Your task to perform on an android device: What's the news in French Guiana? Image 0: 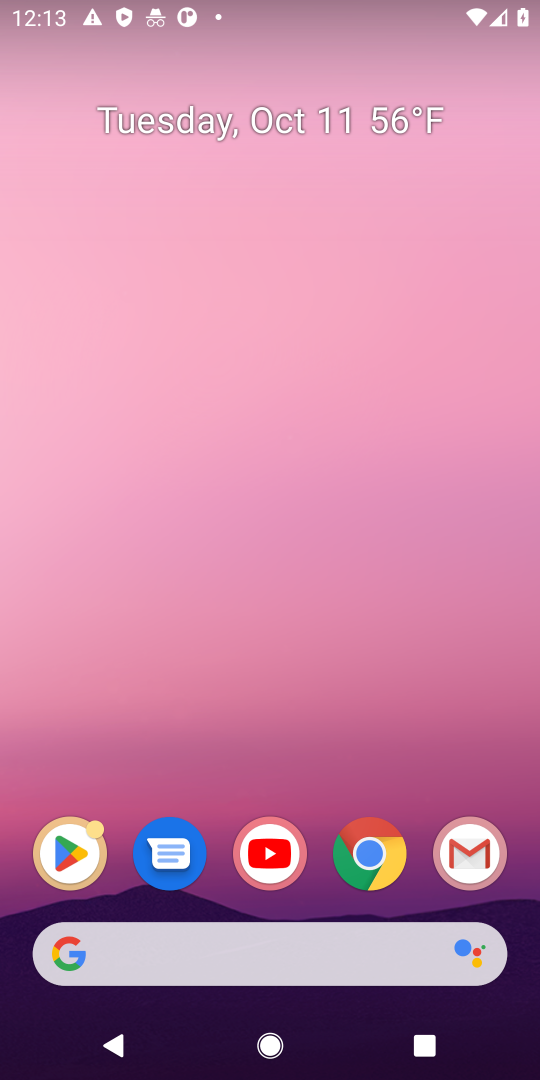
Step 0: drag from (306, 809) to (383, 30)
Your task to perform on an android device: What's the news in French Guiana? Image 1: 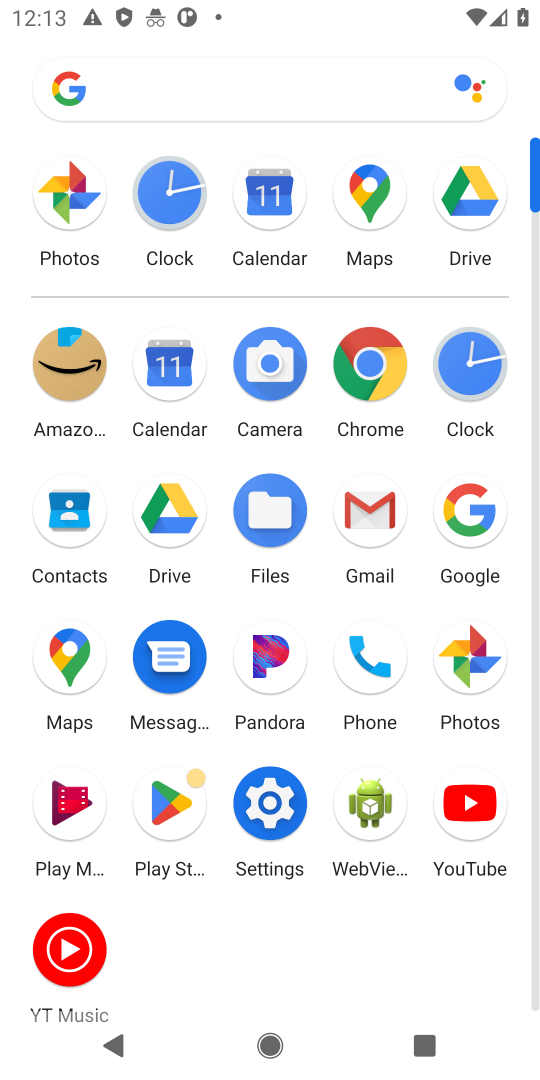
Step 1: click (376, 358)
Your task to perform on an android device: What's the news in French Guiana? Image 2: 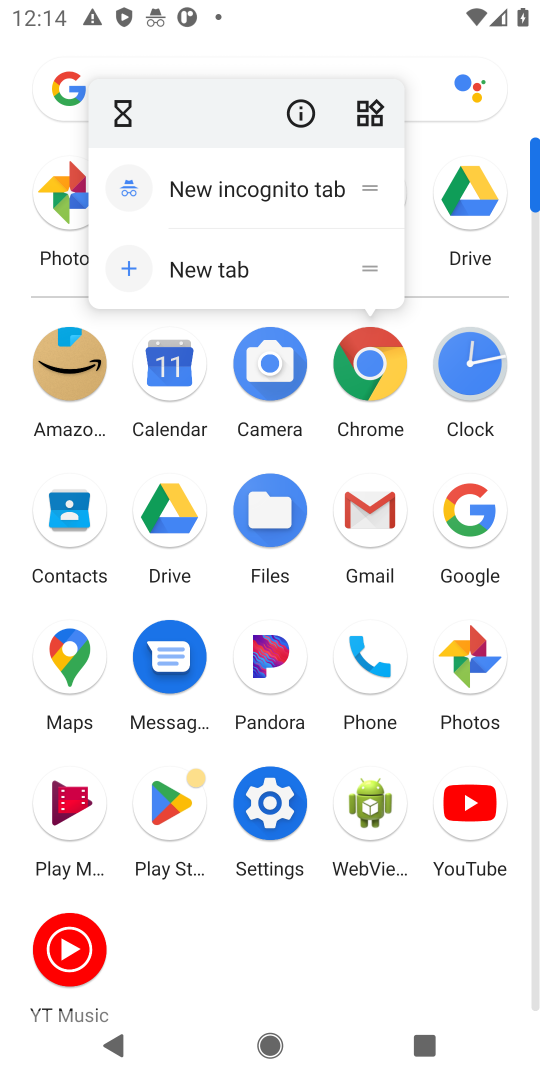
Step 2: click (385, 359)
Your task to perform on an android device: What's the news in French Guiana? Image 3: 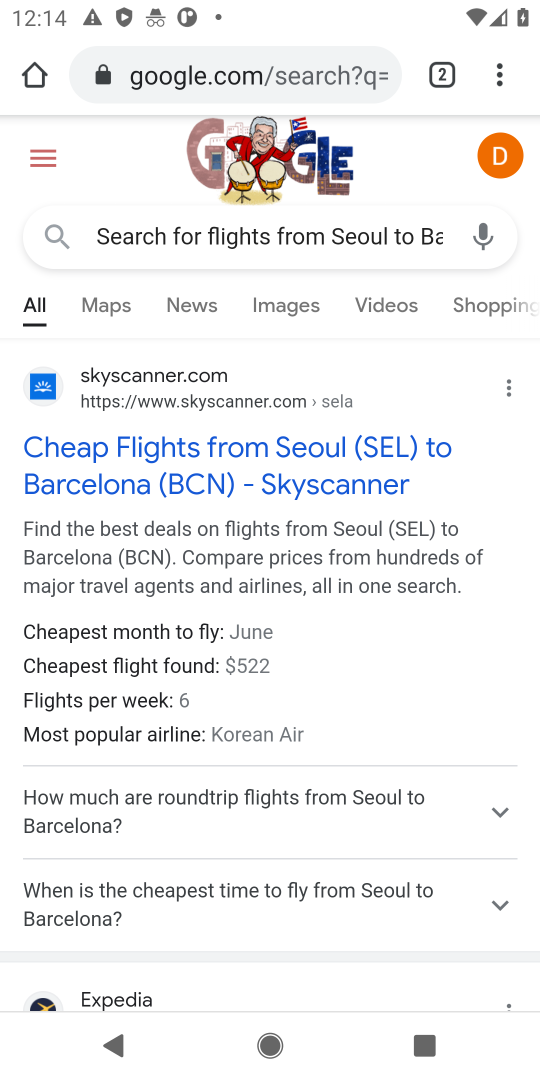
Step 3: click (201, 74)
Your task to perform on an android device: What's the news in French Guiana? Image 4: 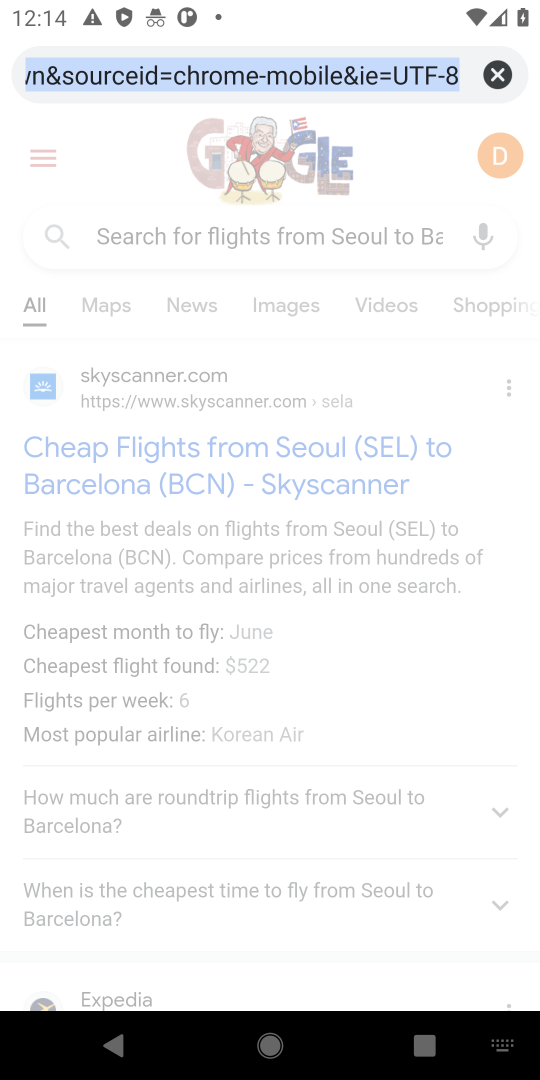
Step 4: click (490, 75)
Your task to perform on an android device: What's the news in French Guiana? Image 5: 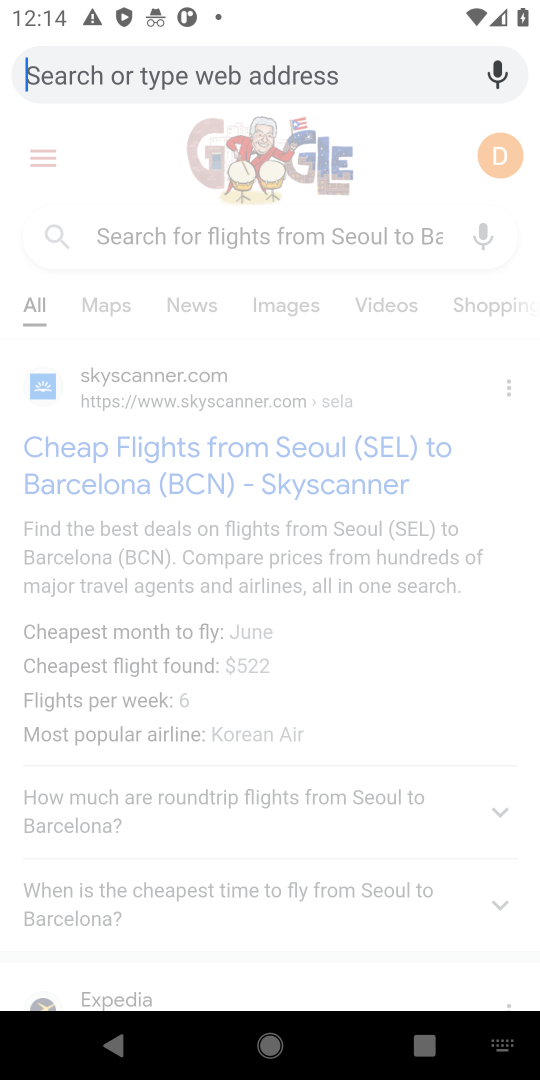
Step 5: type "What's the news in French Guiana?"
Your task to perform on an android device: What's the news in French Guiana? Image 6: 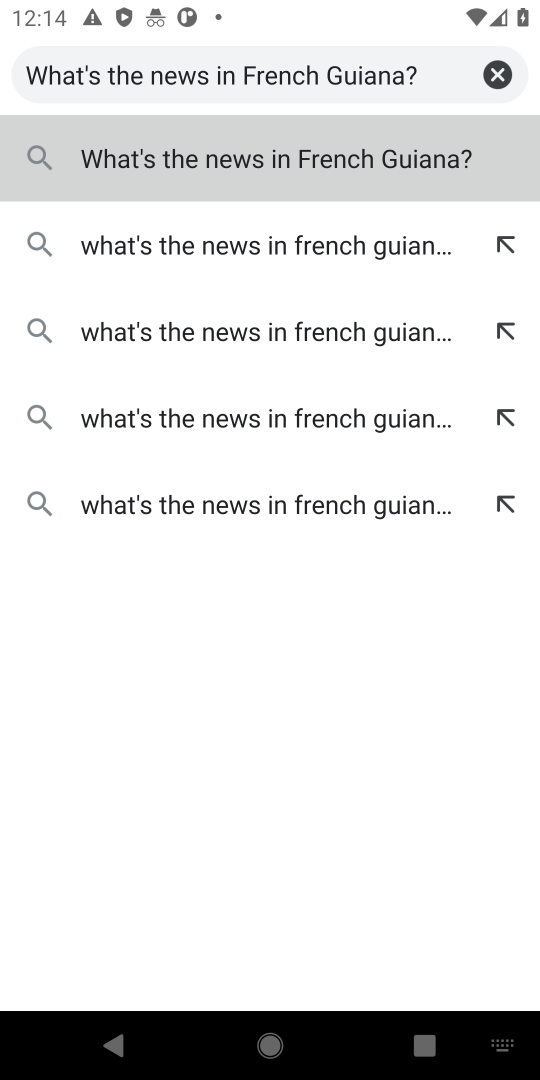
Step 6: click (209, 171)
Your task to perform on an android device: What's the news in French Guiana? Image 7: 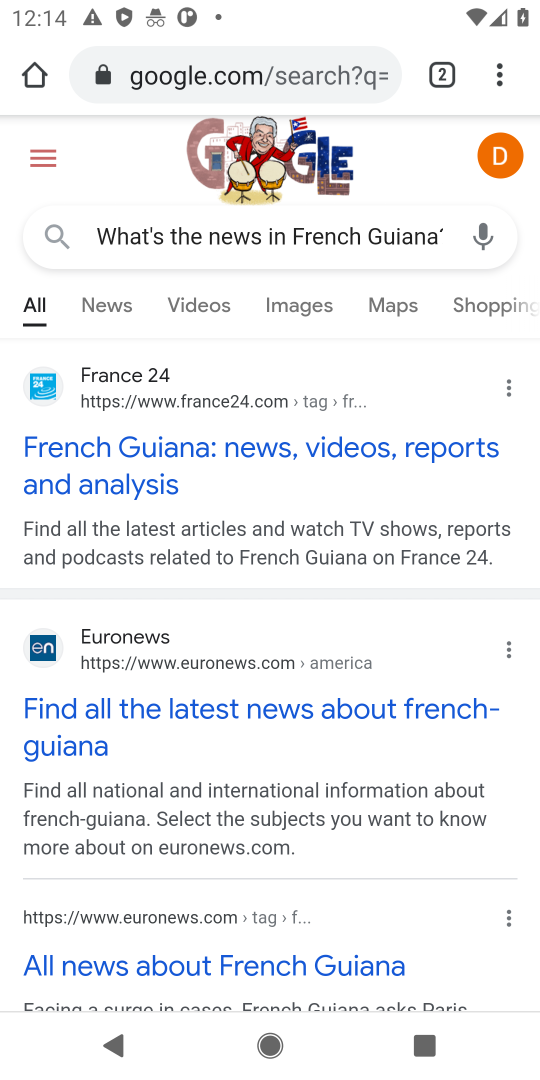
Step 7: task complete